Your task to perform on an android device: Open the web browser Image 0: 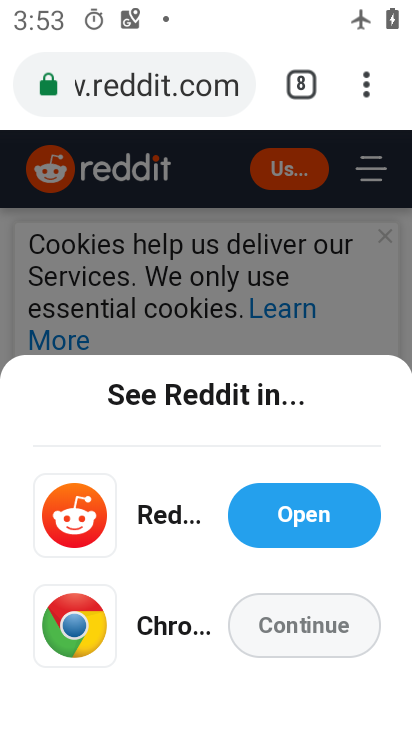
Step 0: press home button
Your task to perform on an android device: Open the web browser Image 1: 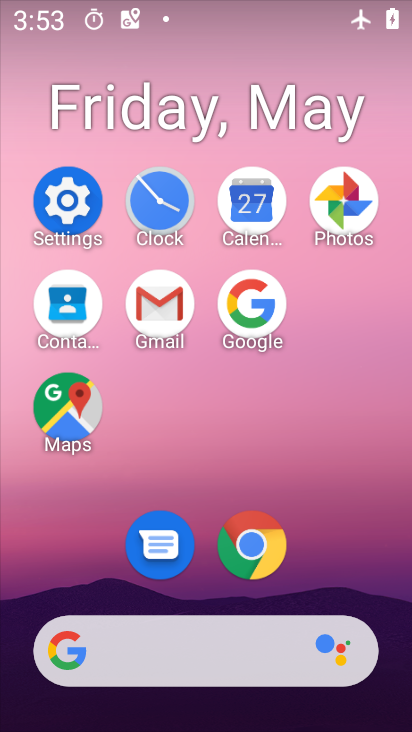
Step 1: click (278, 592)
Your task to perform on an android device: Open the web browser Image 2: 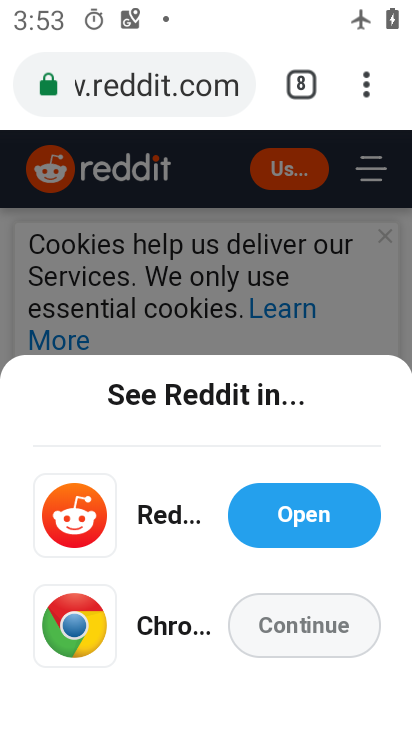
Step 2: task complete